Your task to perform on an android device: check google app version Image 0: 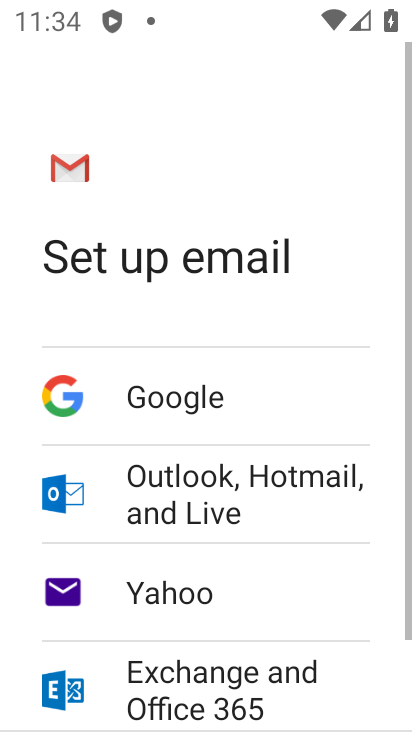
Step 0: press home button
Your task to perform on an android device: check google app version Image 1: 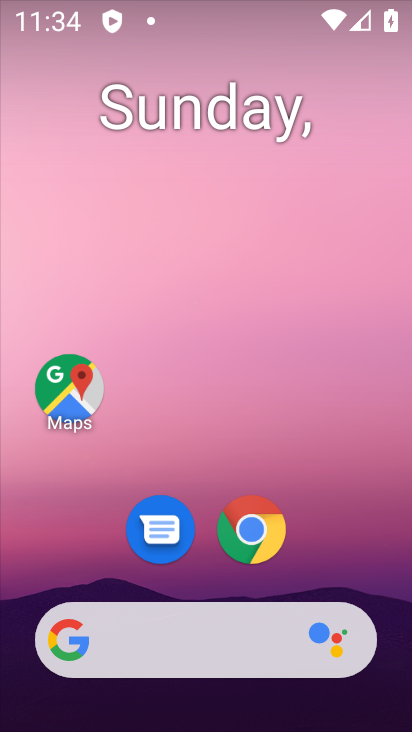
Step 1: drag from (347, 575) to (347, 212)
Your task to perform on an android device: check google app version Image 2: 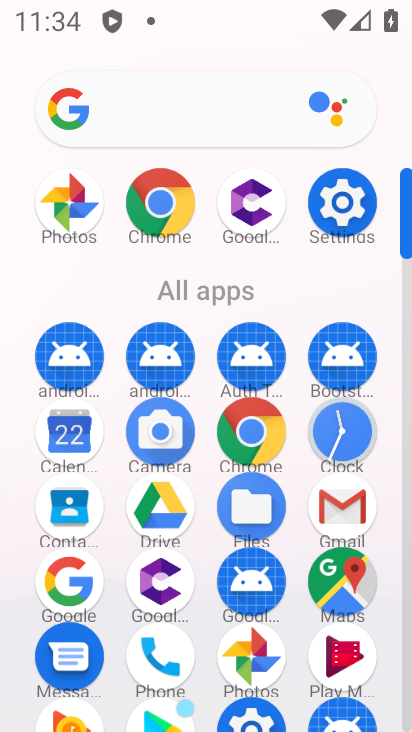
Step 2: click (84, 584)
Your task to perform on an android device: check google app version Image 3: 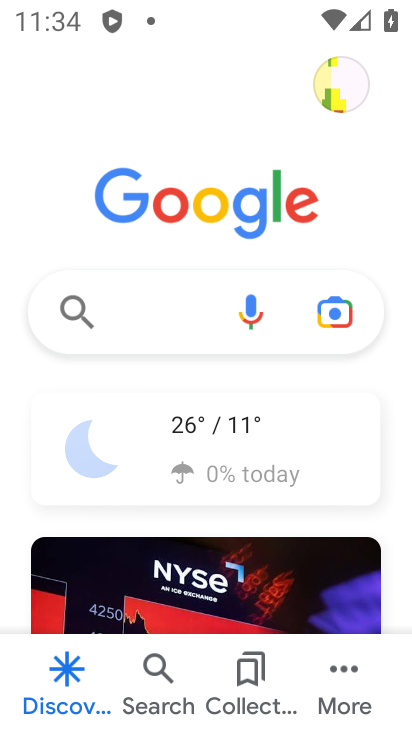
Step 3: click (357, 704)
Your task to perform on an android device: check google app version Image 4: 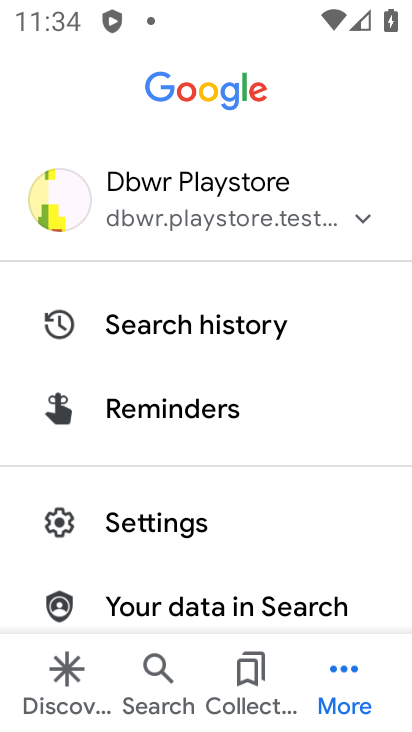
Step 4: drag from (295, 531) to (291, 431)
Your task to perform on an android device: check google app version Image 5: 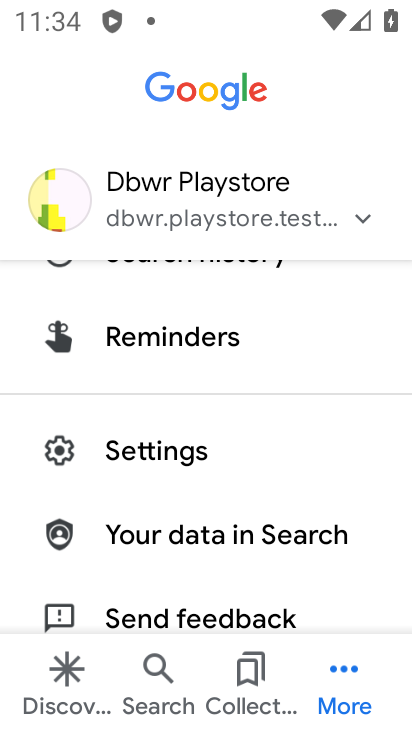
Step 5: click (169, 456)
Your task to perform on an android device: check google app version Image 6: 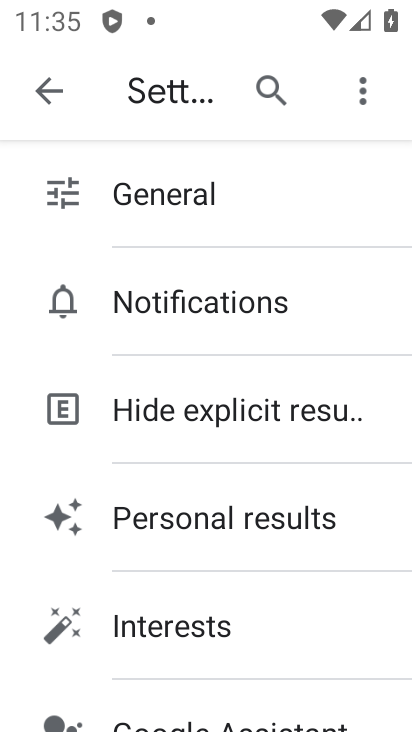
Step 6: drag from (344, 632) to (352, 507)
Your task to perform on an android device: check google app version Image 7: 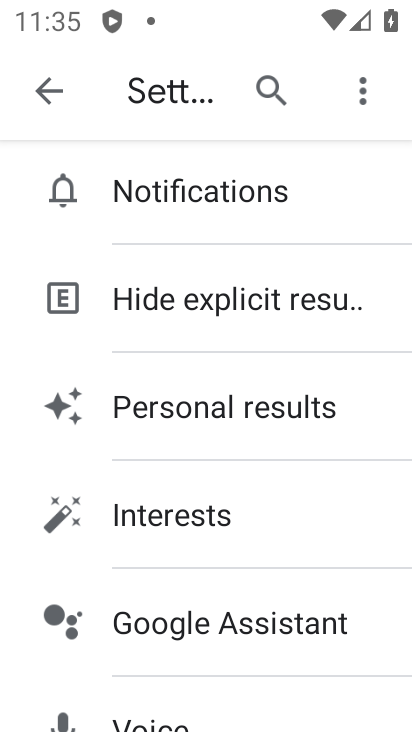
Step 7: drag from (353, 651) to (355, 551)
Your task to perform on an android device: check google app version Image 8: 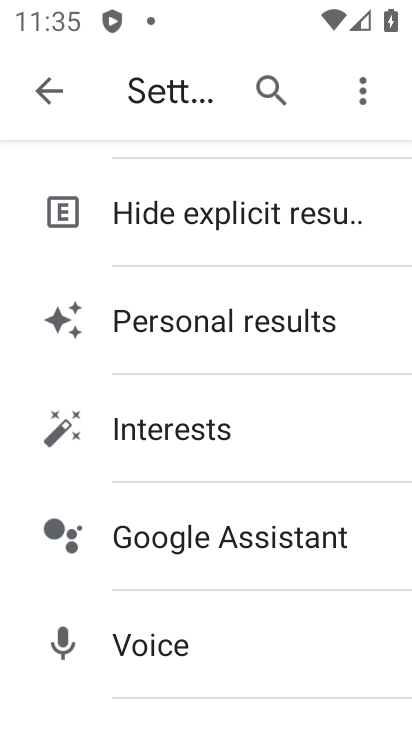
Step 8: drag from (329, 665) to (330, 504)
Your task to perform on an android device: check google app version Image 9: 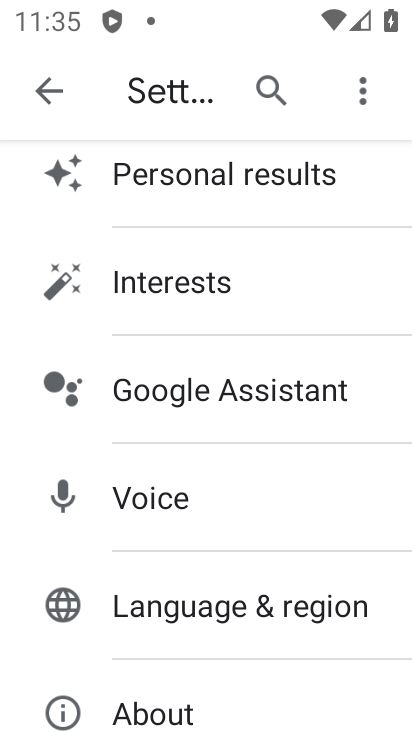
Step 9: drag from (305, 673) to (313, 523)
Your task to perform on an android device: check google app version Image 10: 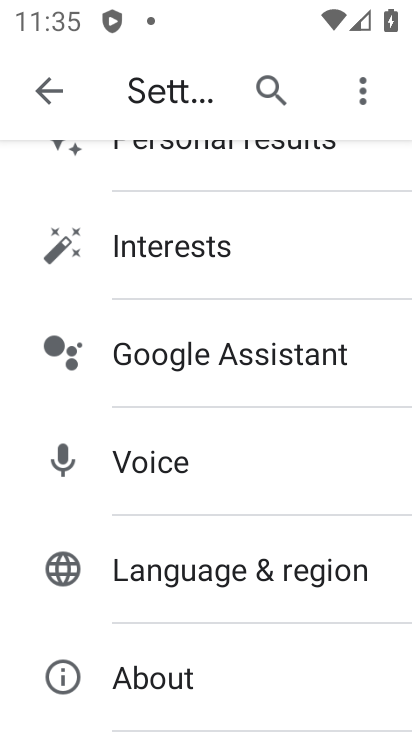
Step 10: click (277, 662)
Your task to perform on an android device: check google app version Image 11: 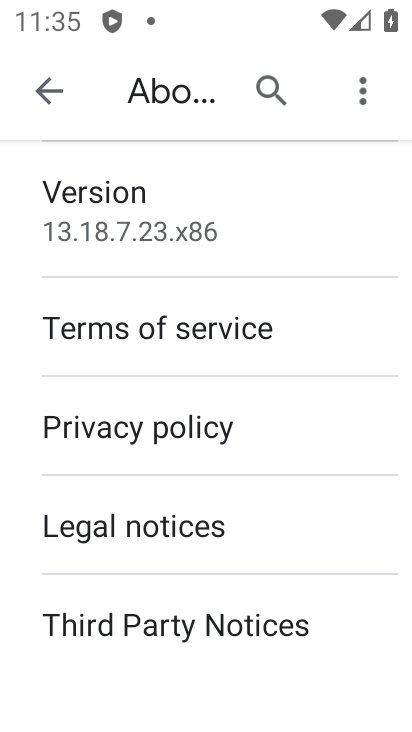
Step 11: task complete